Your task to perform on an android device: Empty the shopping cart on bestbuy. Add "usb-c to usb-a" to the cart on bestbuy Image 0: 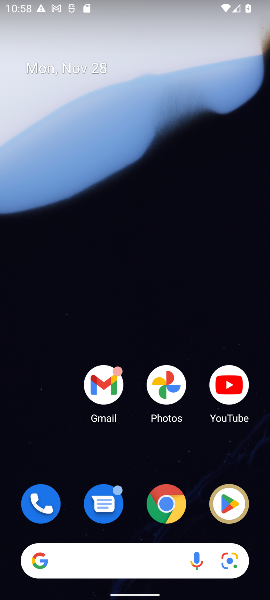
Step 0: click (169, 516)
Your task to perform on an android device: Empty the shopping cart on bestbuy. Add "usb-c to usb-a" to the cart on bestbuy Image 1: 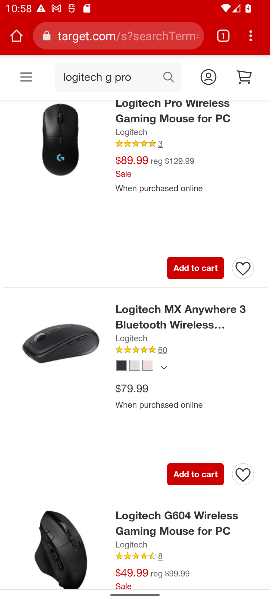
Step 1: click (114, 39)
Your task to perform on an android device: Empty the shopping cart on bestbuy. Add "usb-c to usb-a" to the cart on bestbuy Image 2: 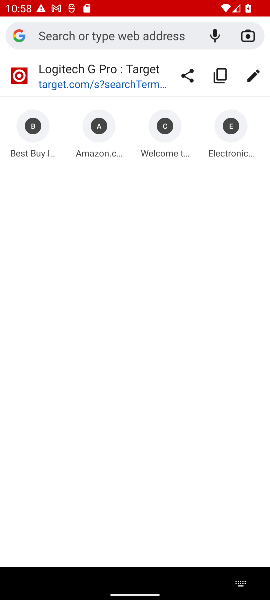
Step 2: click (32, 146)
Your task to perform on an android device: Empty the shopping cart on bestbuy. Add "usb-c to usb-a" to the cart on bestbuy Image 3: 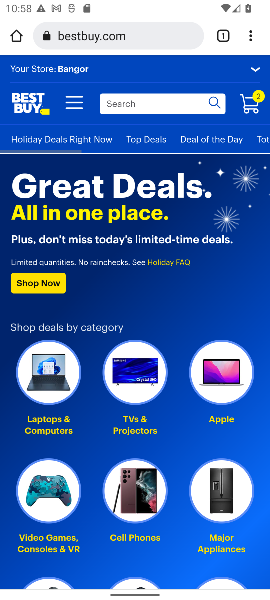
Step 3: click (249, 105)
Your task to perform on an android device: Empty the shopping cart on bestbuy. Add "usb-c to usb-a" to the cart on bestbuy Image 4: 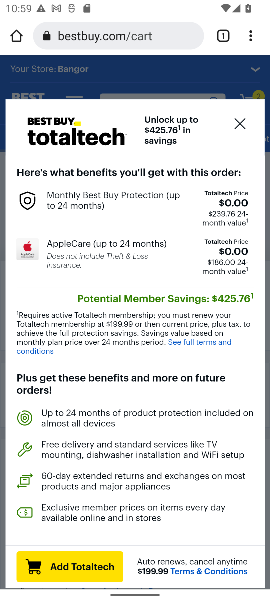
Step 4: click (249, 105)
Your task to perform on an android device: Empty the shopping cart on bestbuy. Add "usb-c to usb-a" to the cart on bestbuy Image 5: 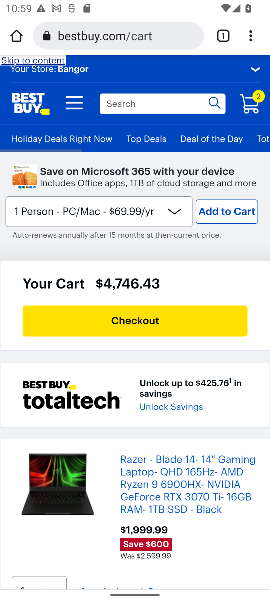
Step 5: drag from (250, 538) to (246, 321)
Your task to perform on an android device: Empty the shopping cart on bestbuy. Add "usb-c to usb-a" to the cart on bestbuy Image 6: 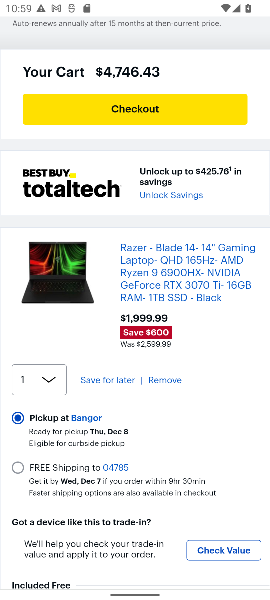
Step 6: click (159, 385)
Your task to perform on an android device: Empty the shopping cart on bestbuy. Add "usb-c to usb-a" to the cart on bestbuy Image 7: 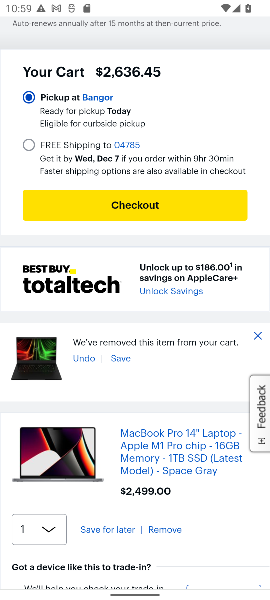
Step 7: drag from (224, 458) to (234, 262)
Your task to perform on an android device: Empty the shopping cart on bestbuy. Add "usb-c to usb-a" to the cart on bestbuy Image 8: 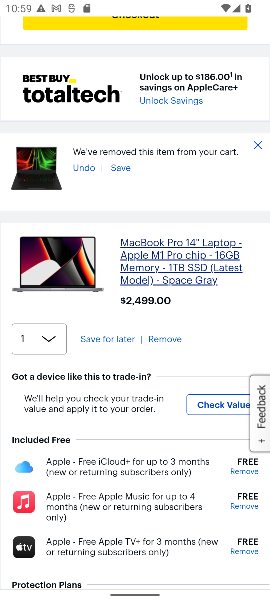
Step 8: click (177, 340)
Your task to perform on an android device: Empty the shopping cart on bestbuy. Add "usb-c to usb-a" to the cart on bestbuy Image 9: 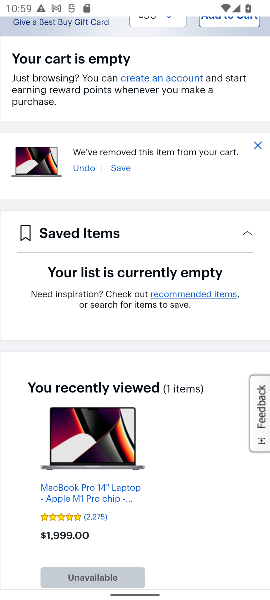
Step 9: drag from (169, 113) to (170, 307)
Your task to perform on an android device: Empty the shopping cart on bestbuy. Add "usb-c to usb-a" to the cart on bestbuy Image 10: 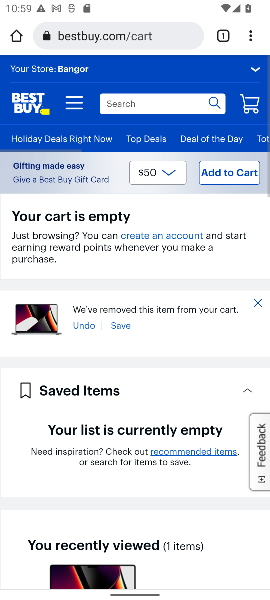
Step 10: click (125, 90)
Your task to perform on an android device: Empty the shopping cart on bestbuy. Add "usb-c to usb-a" to the cart on bestbuy Image 11: 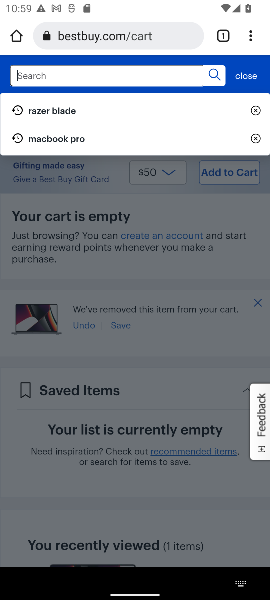
Step 11: type "usb-c to usb-a"
Your task to perform on an android device: Empty the shopping cart on bestbuy. Add "usb-c to usb-a" to the cart on bestbuy Image 12: 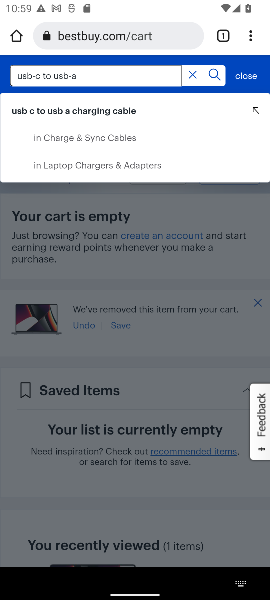
Step 12: click (78, 112)
Your task to perform on an android device: Empty the shopping cart on bestbuy. Add "usb-c to usb-a" to the cart on bestbuy Image 13: 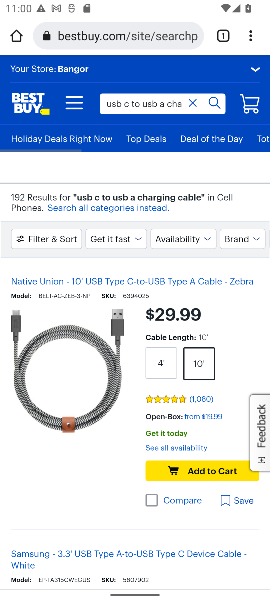
Step 13: click (180, 467)
Your task to perform on an android device: Empty the shopping cart on bestbuy. Add "usb-c to usb-a" to the cart on bestbuy Image 14: 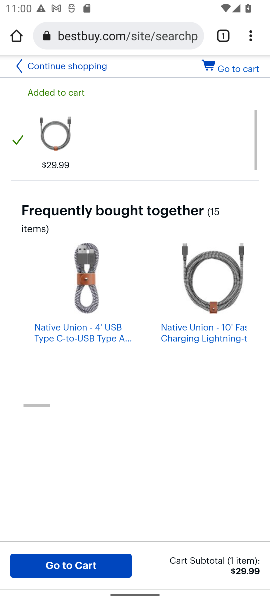
Step 14: task complete